Your task to perform on an android device: turn on the 12-hour format for clock Image 0: 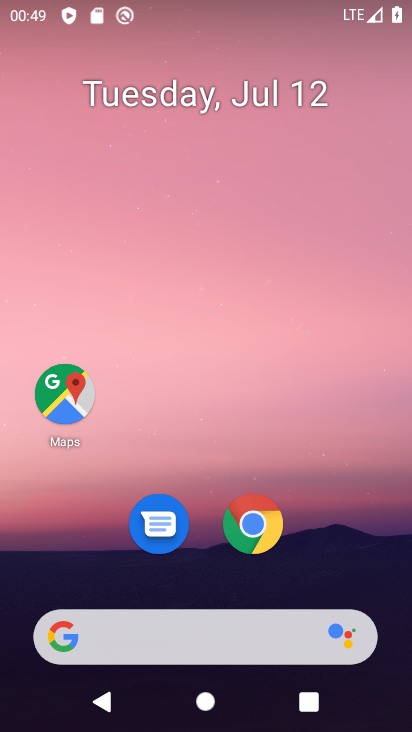
Step 0: drag from (324, 488) to (338, 18)
Your task to perform on an android device: turn on the 12-hour format for clock Image 1: 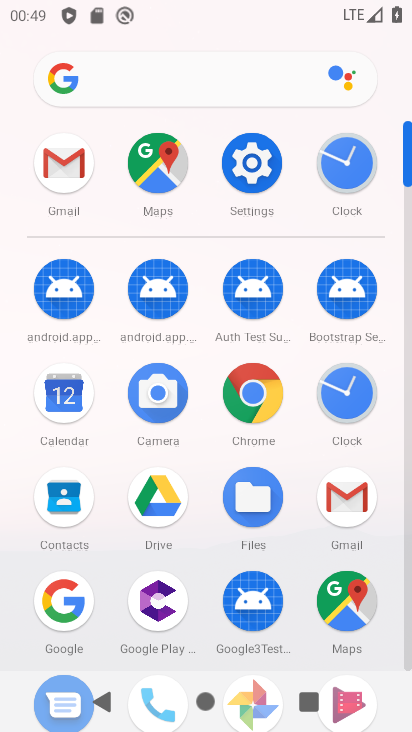
Step 1: click (326, 149)
Your task to perform on an android device: turn on the 12-hour format for clock Image 2: 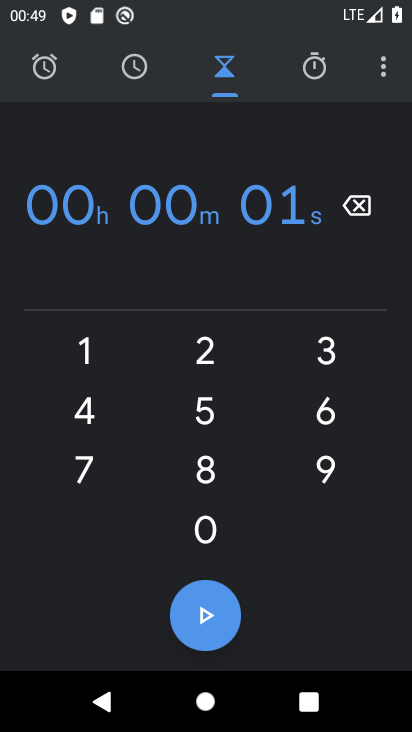
Step 2: click (387, 70)
Your task to perform on an android device: turn on the 12-hour format for clock Image 3: 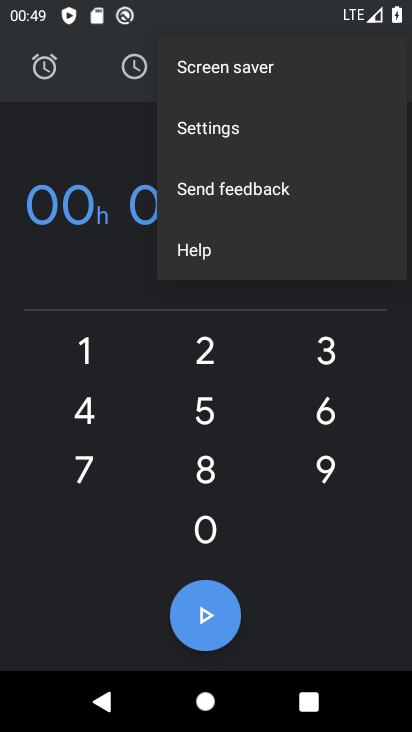
Step 3: click (293, 122)
Your task to perform on an android device: turn on the 12-hour format for clock Image 4: 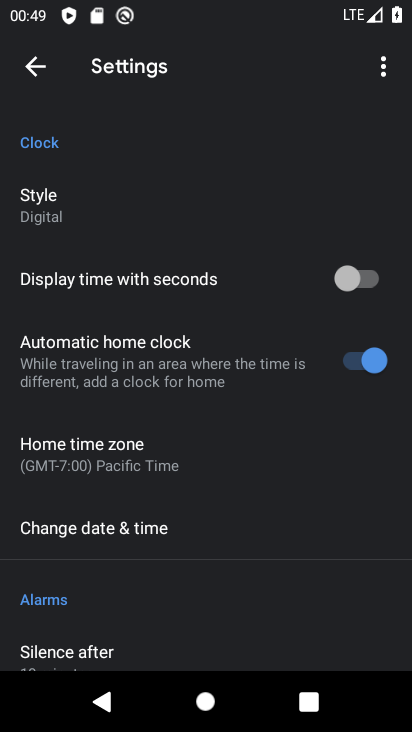
Step 4: click (159, 529)
Your task to perform on an android device: turn on the 12-hour format for clock Image 5: 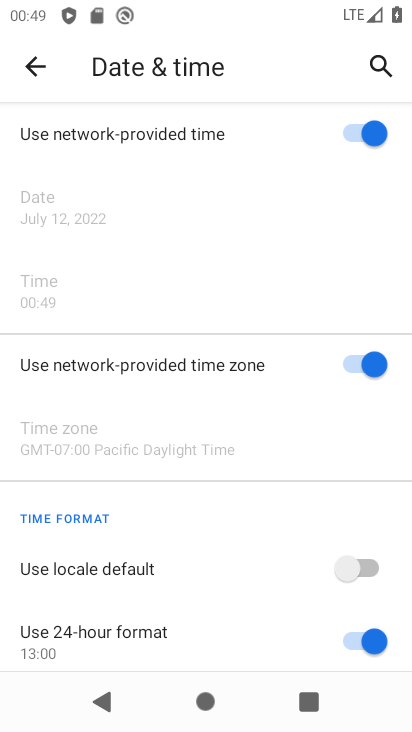
Step 5: click (361, 560)
Your task to perform on an android device: turn on the 12-hour format for clock Image 6: 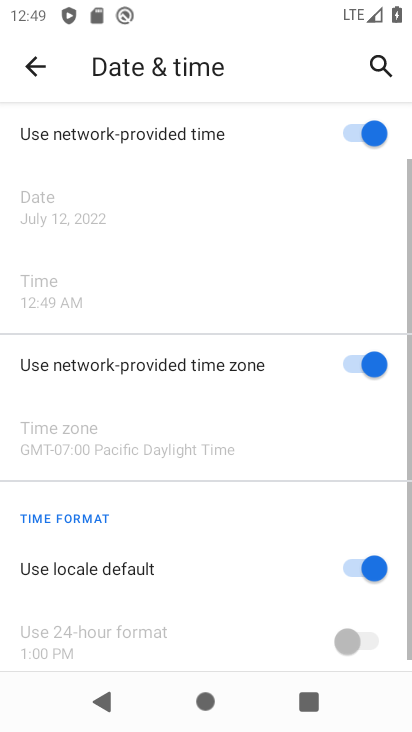
Step 6: click (361, 636)
Your task to perform on an android device: turn on the 12-hour format for clock Image 7: 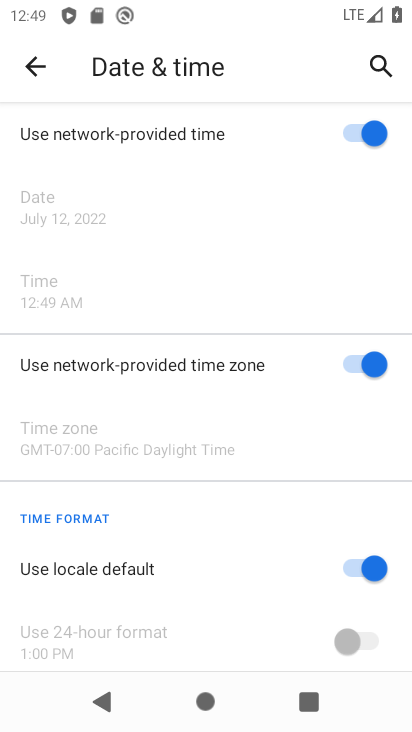
Step 7: task complete